Your task to perform on an android device: Go to display settings Image 0: 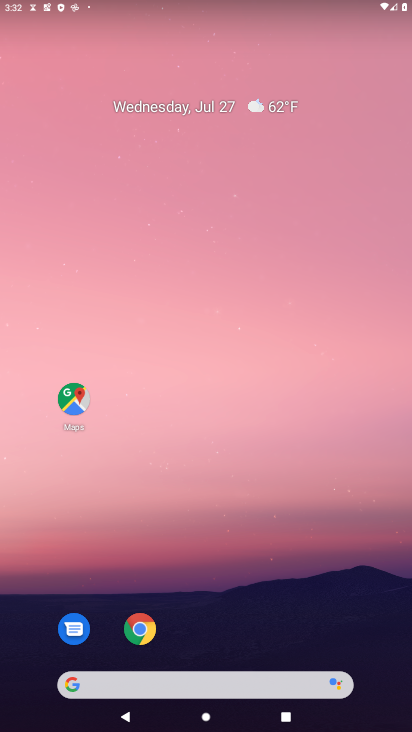
Step 0: drag from (220, 678) to (276, 0)
Your task to perform on an android device: Go to display settings Image 1: 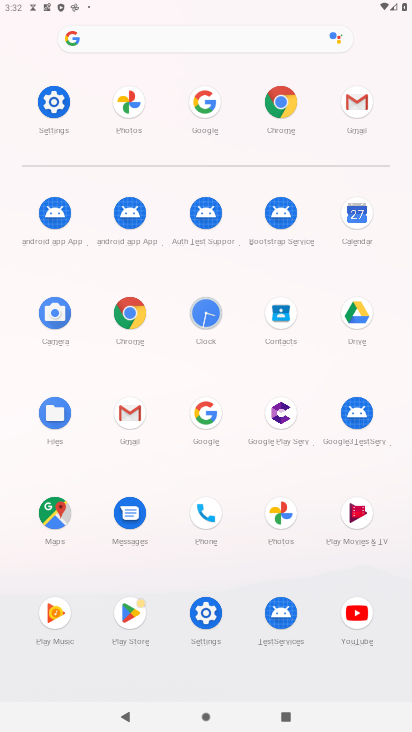
Step 1: click (54, 102)
Your task to perform on an android device: Go to display settings Image 2: 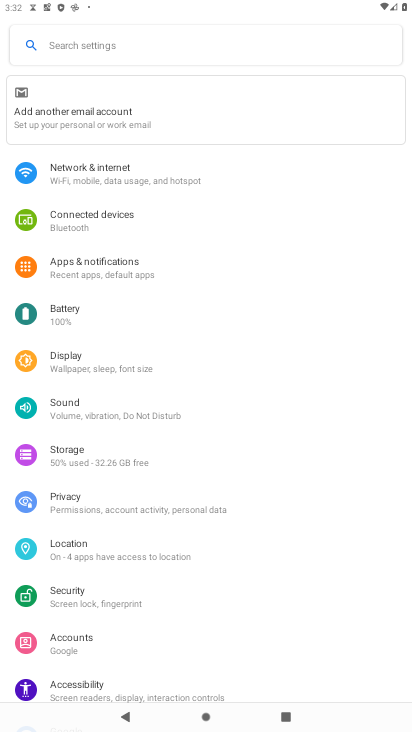
Step 2: click (69, 365)
Your task to perform on an android device: Go to display settings Image 3: 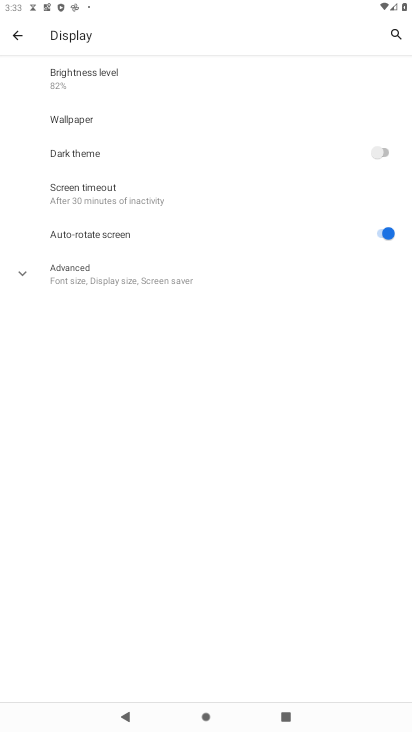
Step 3: task complete